Your task to perform on an android device: Go to Amazon Image 0: 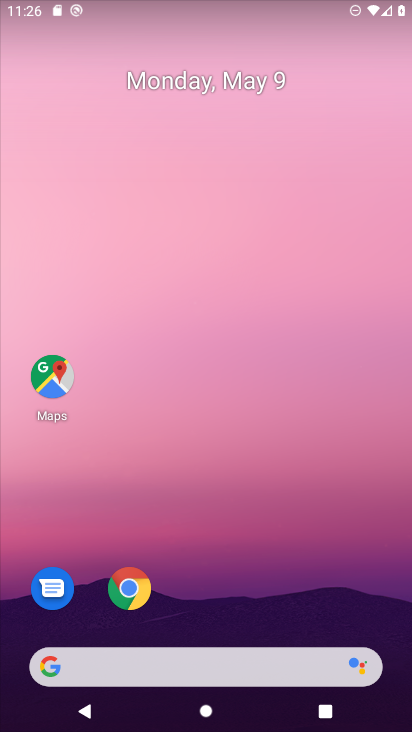
Step 0: click (127, 608)
Your task to perform on an android device: Go to Amazon Image 1: 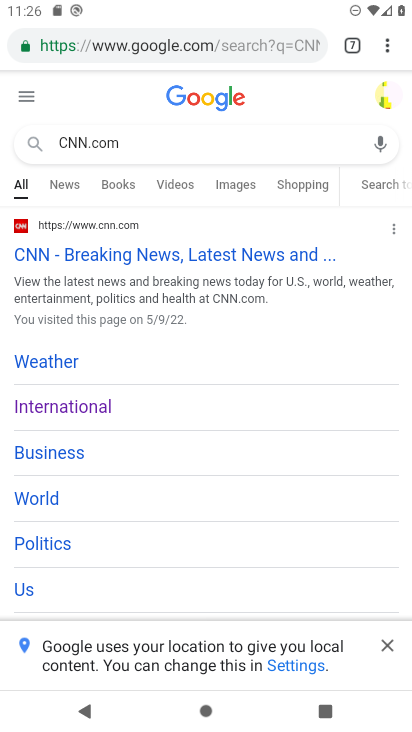
Step 1: click (351, 45)
Your task to perform on an android device: Go to Amazon Image 2: 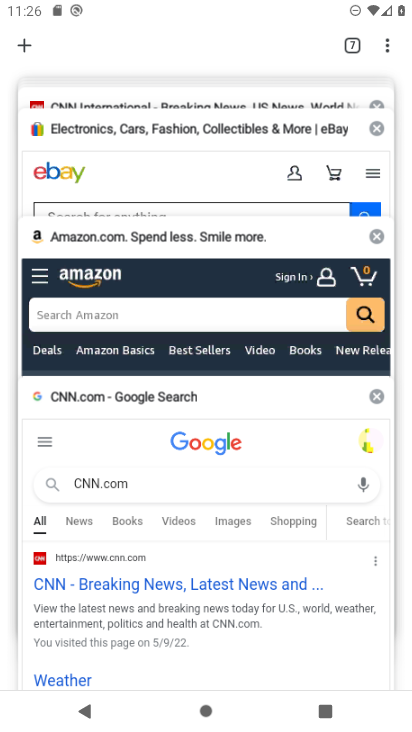
Step 2: click (21, 44)
Your task to perform on an android device: Go to Amazon Image 3: 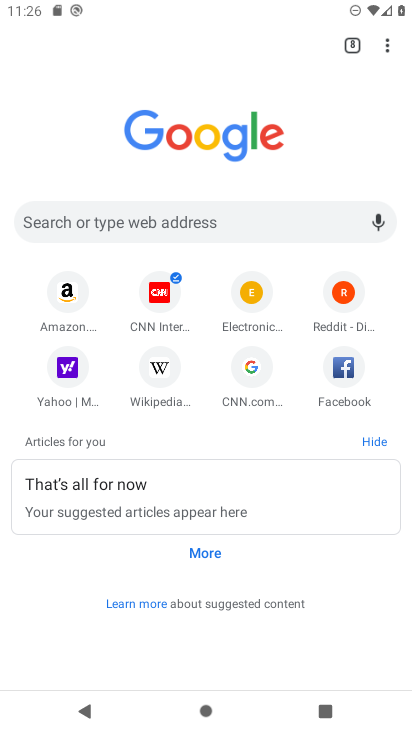
Step 3: click (86, 301)
Your task to perform on an android device: Go to Amazon Image 4: 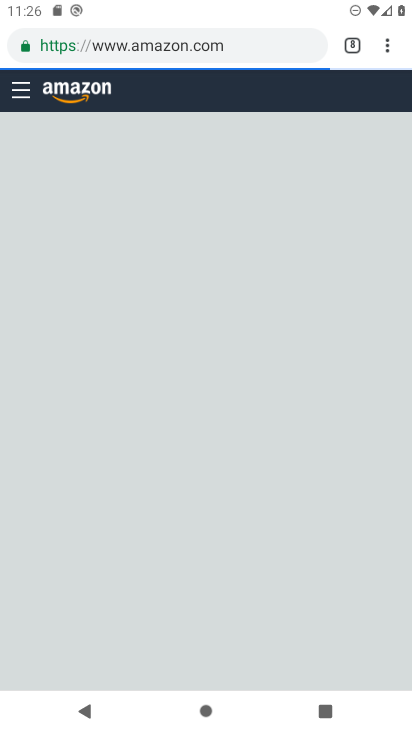
Step 4: task complete